Your task to perform on an android device: toggle notifications settings in the gmail app Image 0: 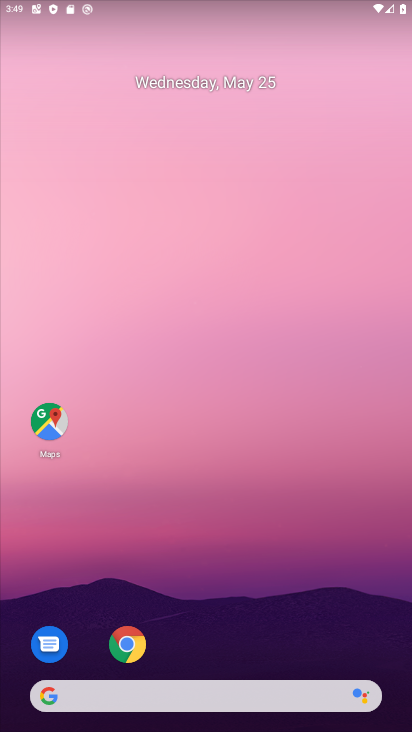
Step 0: drag from (262, 672) to (271, 22)
Your task to perform on an android device: toggle notifications settings in the gmail app Image 1: 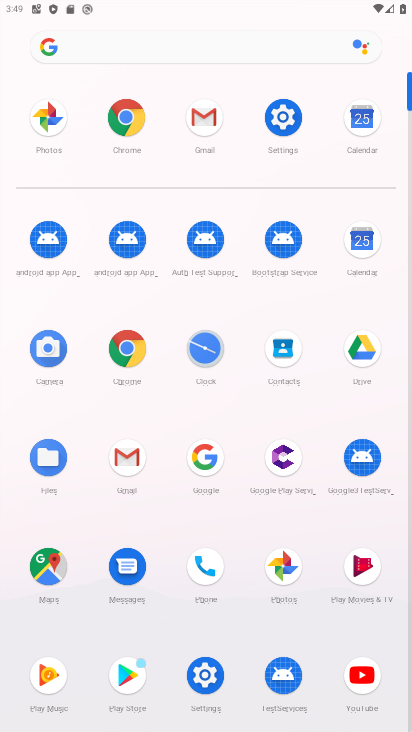
Step 1: click (197, 115)
Your task to perform on an android device: toggle notifications settings in the gmail app Image 2: 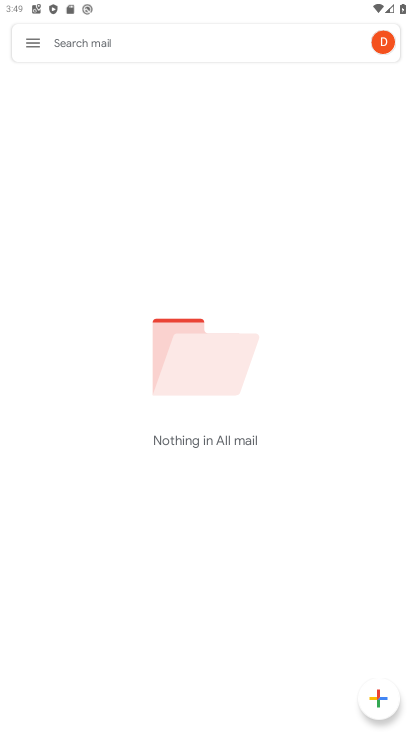
Step 2: click (32, 44)
Your task to perform on an android device: toggle notifications settings in the gmail app Image 3: 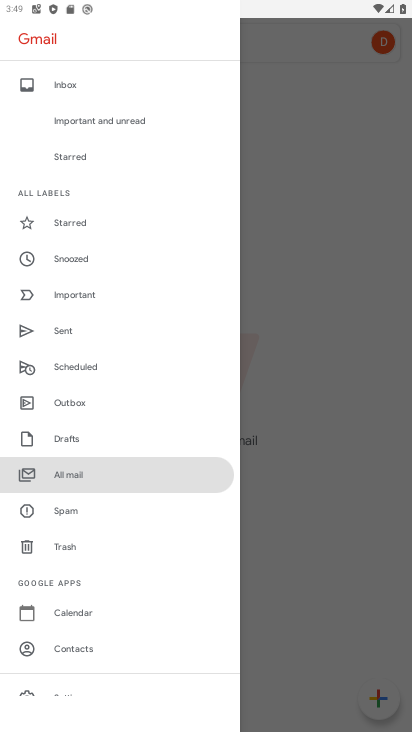
Step 3: drag from (124, 619) to (124, 357)
Your task to perform on an android device: toggle notifications settings in the gmail app Image 4: 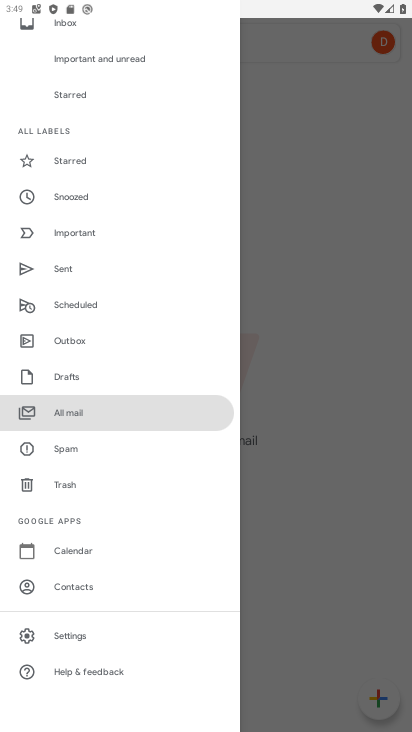
Step 4: click (74, 633)
Your task to perform on an android device: toggle notifications settings in the gmail app Image 5: 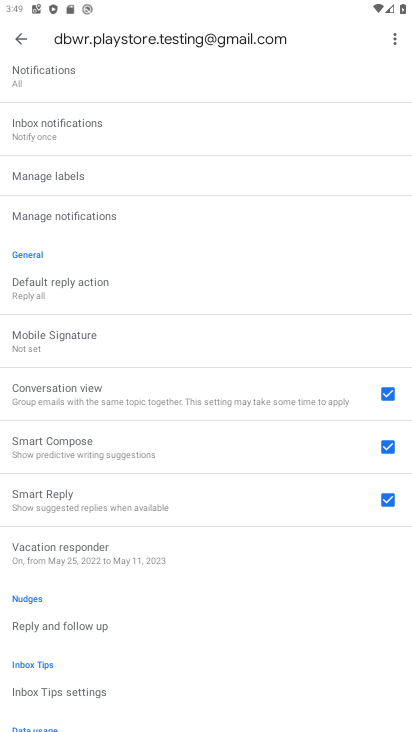
Step 5: click (16, 37)
Your task to perform on an android device: toggle notifications settings in the gmail app Image 6: 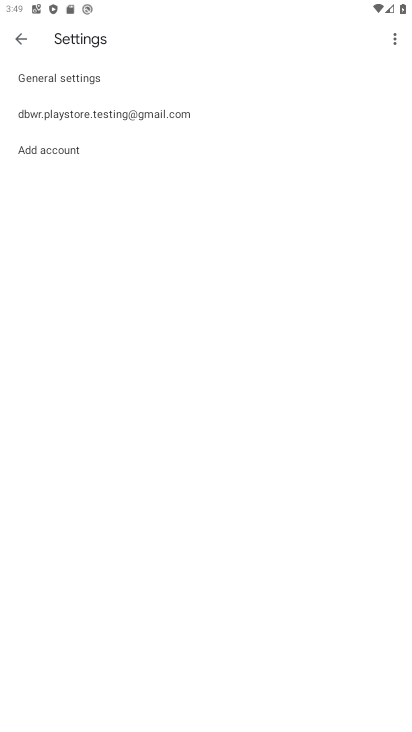
Step 6: click (59, 81)
Your task to perform on an android device: toggle notifications settings in the gmail app Image 7: 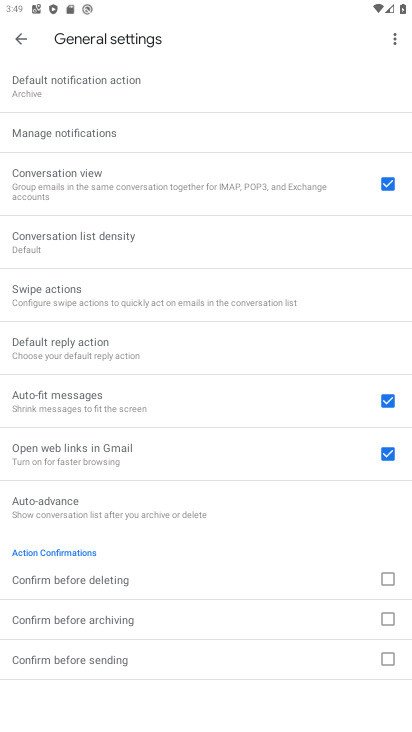
Step 7: click (72, 133)
Your task to perform on an android device: toggle notifications settings in the gmail app Image 8: 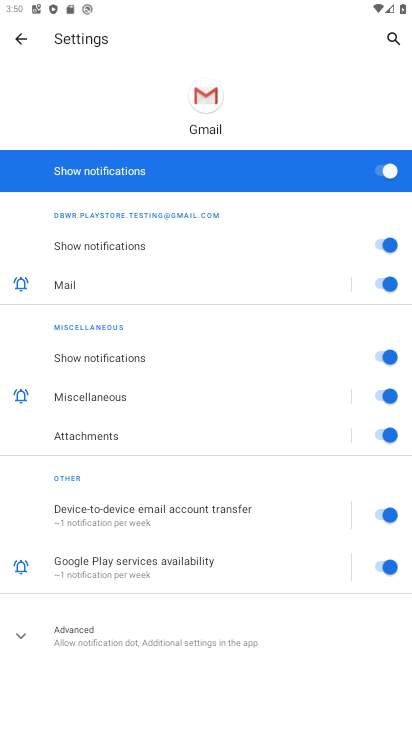
Step 8: click (385, 171)
Your task to perform on an android device: toggle notifications settings in the gmail app Image 9: 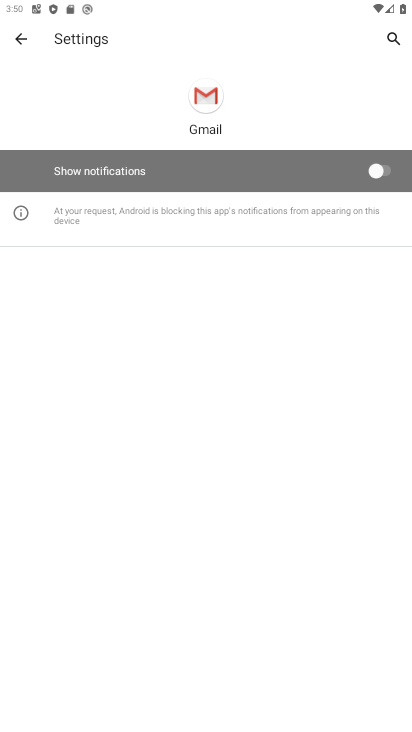
Step 9: task complete